Your task to perform on an android device: uninstall "Indeed Job Search" Image 0: 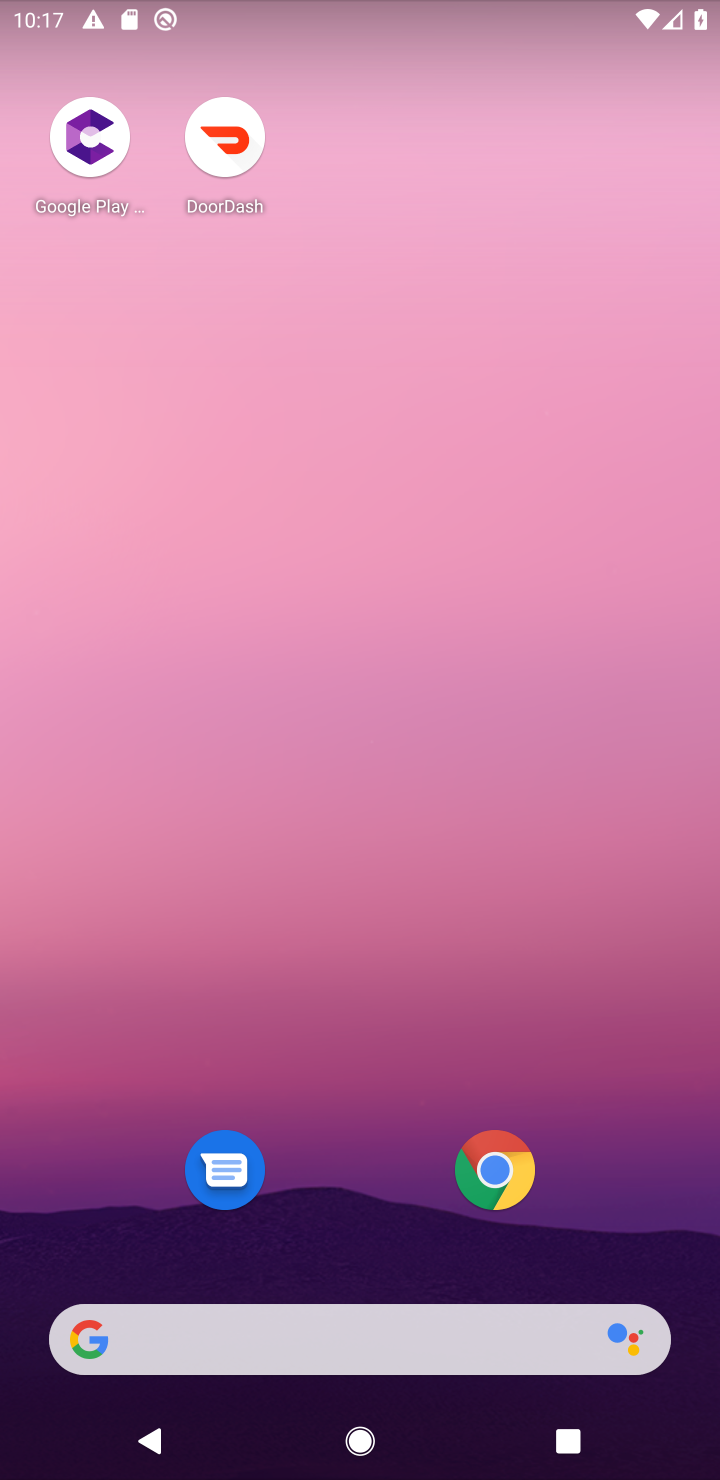
Step 0: drag from (370, 1244) to (336, 182)
Your task to perform on an android device: uninstall "Indeed Job Search" Image 1: 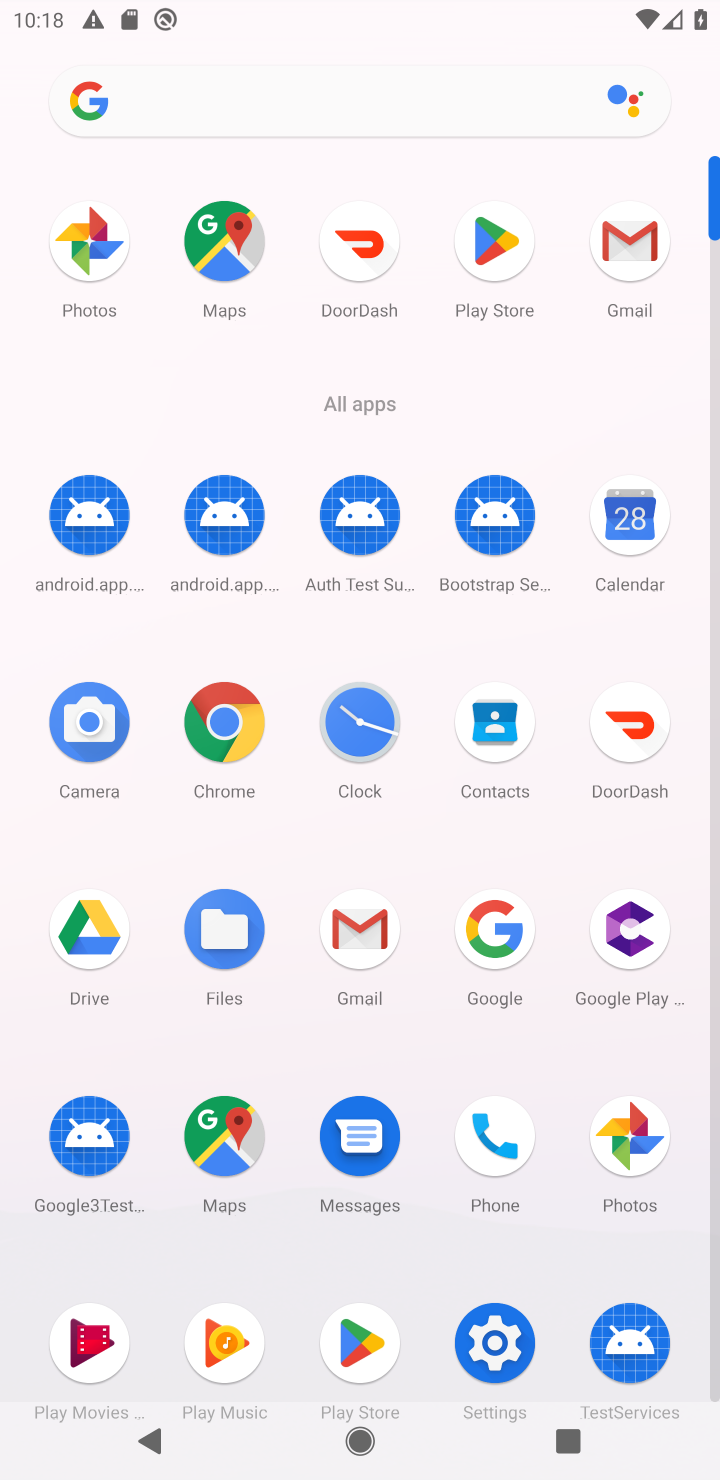
Step 1: click (365, 1332)
Your task to perform on an android device: uninstall "Indeed Job Search" Image 2: 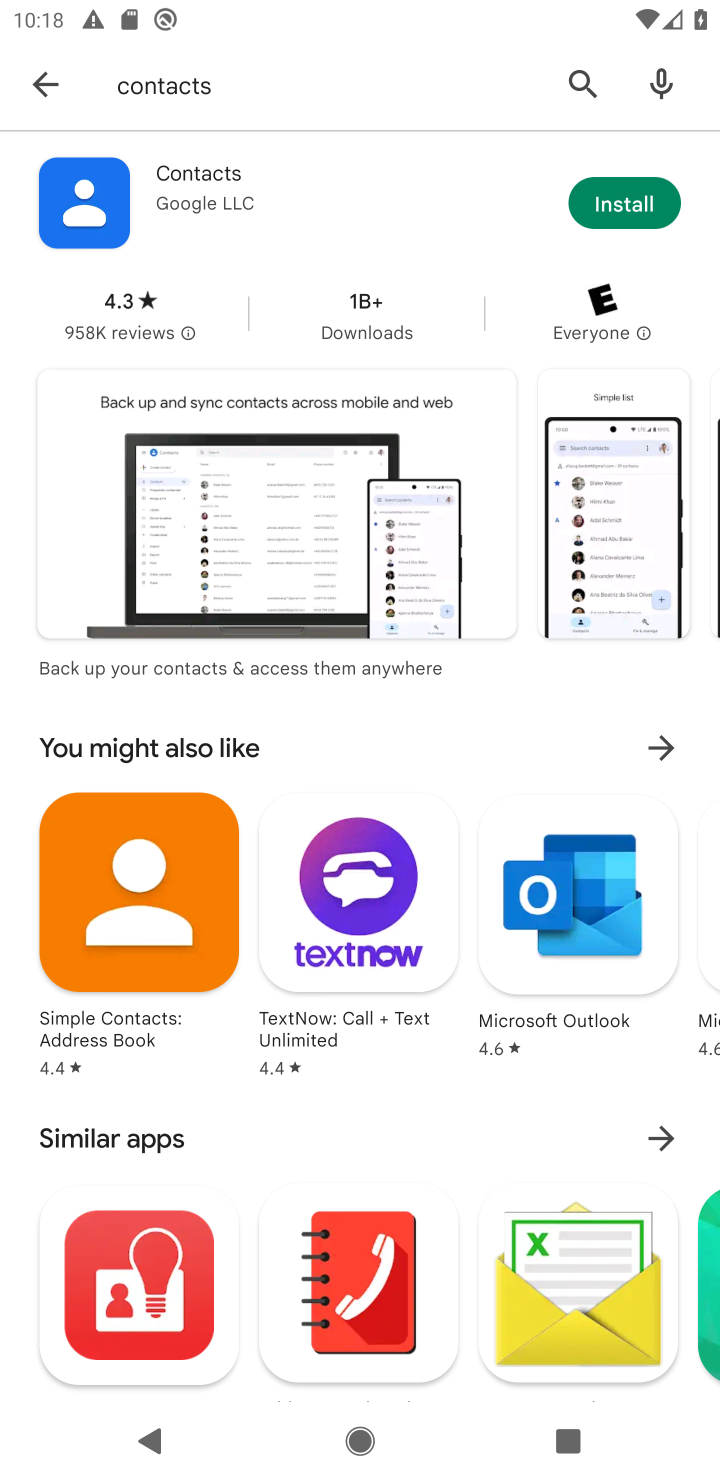
Step 2: click (38, 76)
Your task to perform on an android device: uninstall "Indeed Job Search" Image 3: 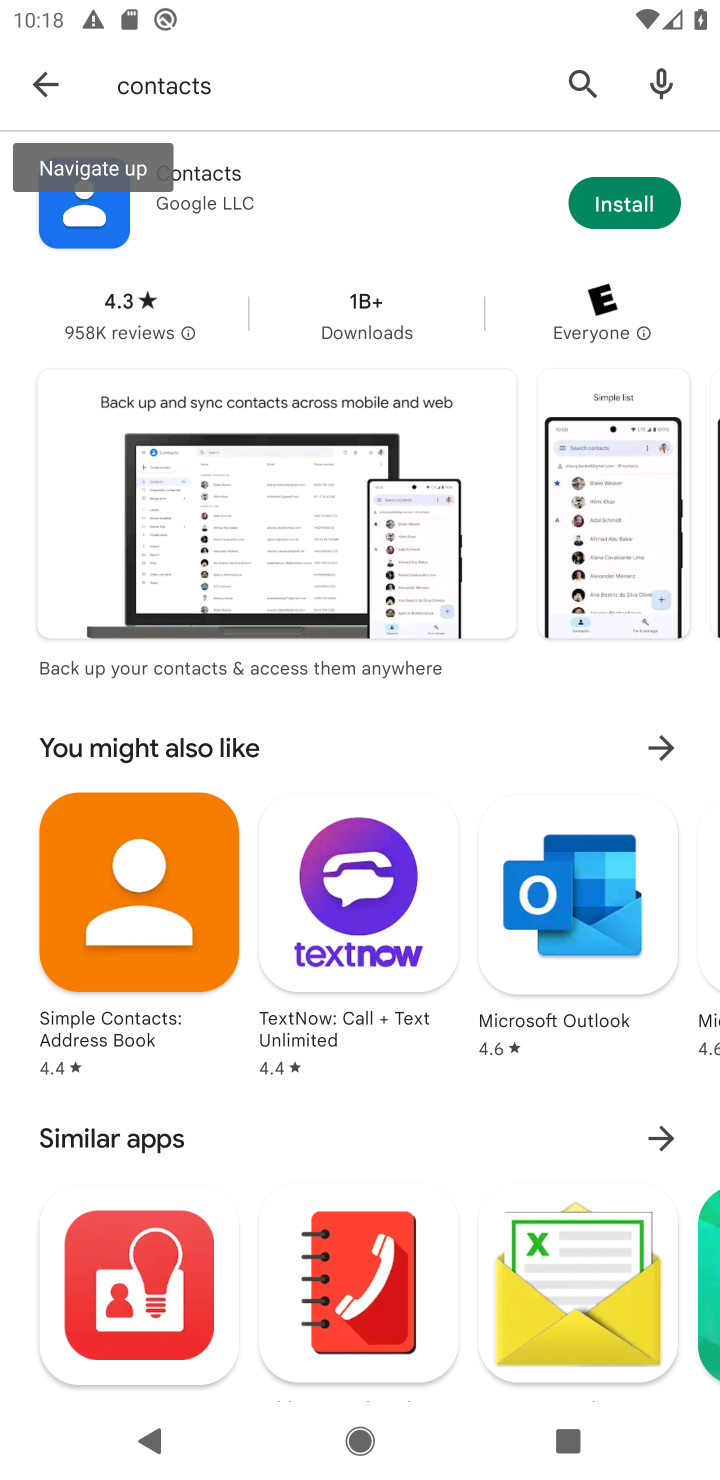
Step 3: click (298, 101)
Your task to perform on an android device: uninstall "Indeed Job Search" Image 4: 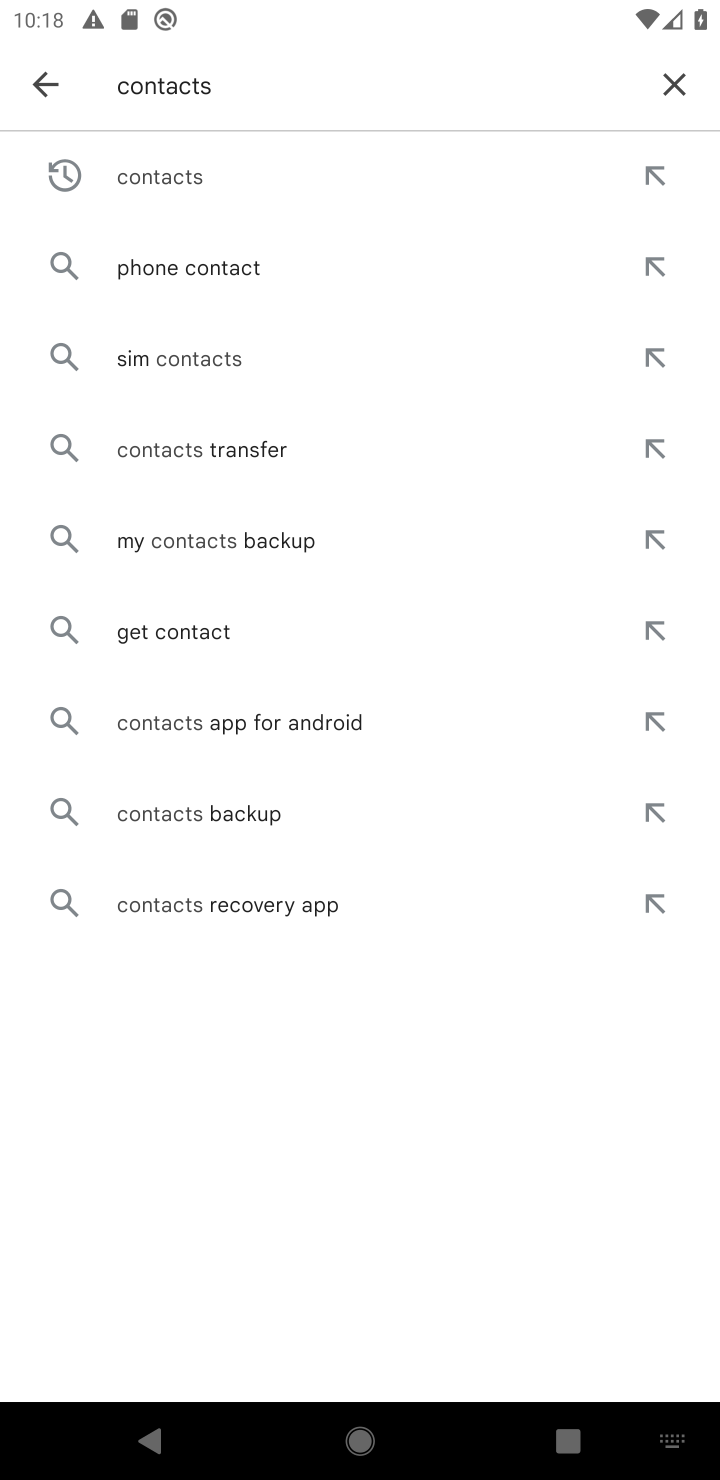
Step 4: click (677, 82)
Your task to perform on an android device: uninstall "Indeed Job Search" Image 5: 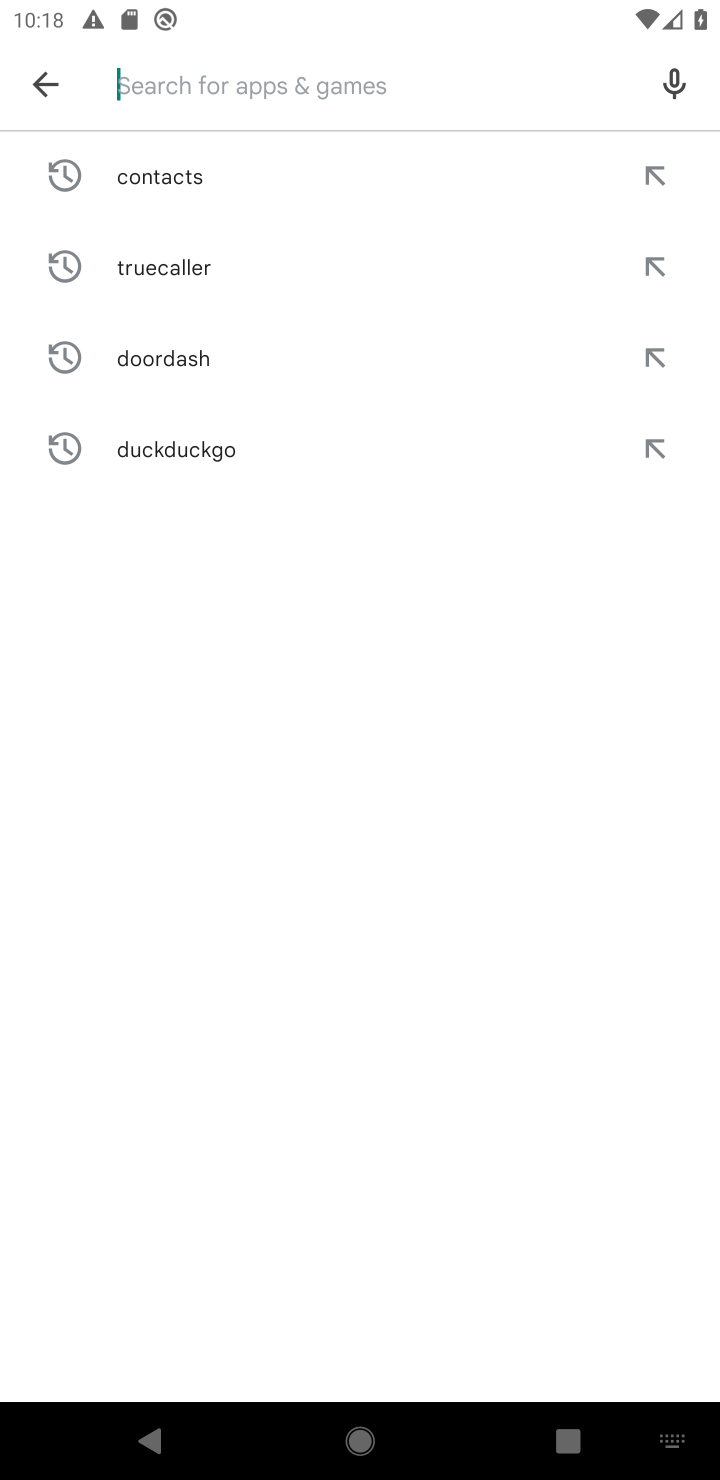
Step 5: type "indeed job search"
Your task to perform on an android device: uninstall "Indeed Job Search" Image 6: 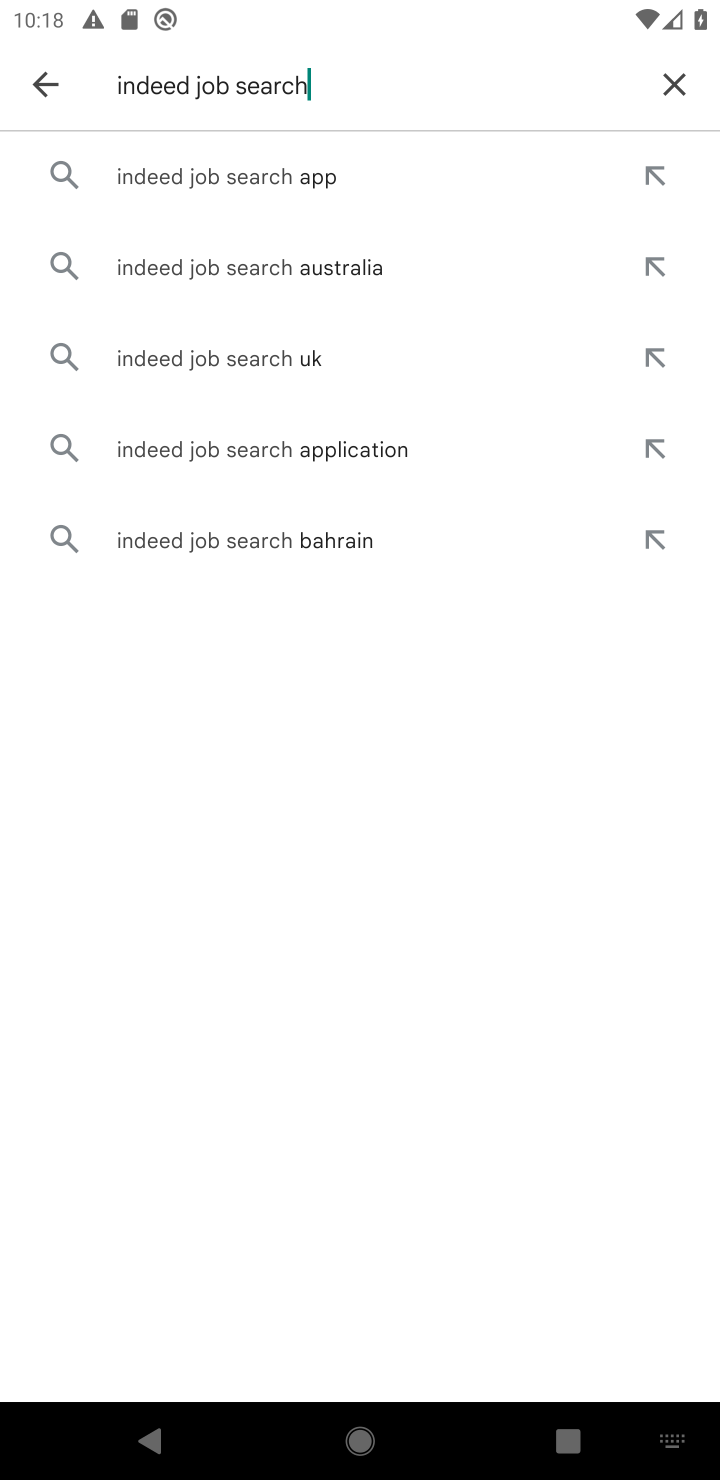
Step 6: click (122, 194)
Your task to perform on an android device: uninstall "Indeed Job Search" Image 7: 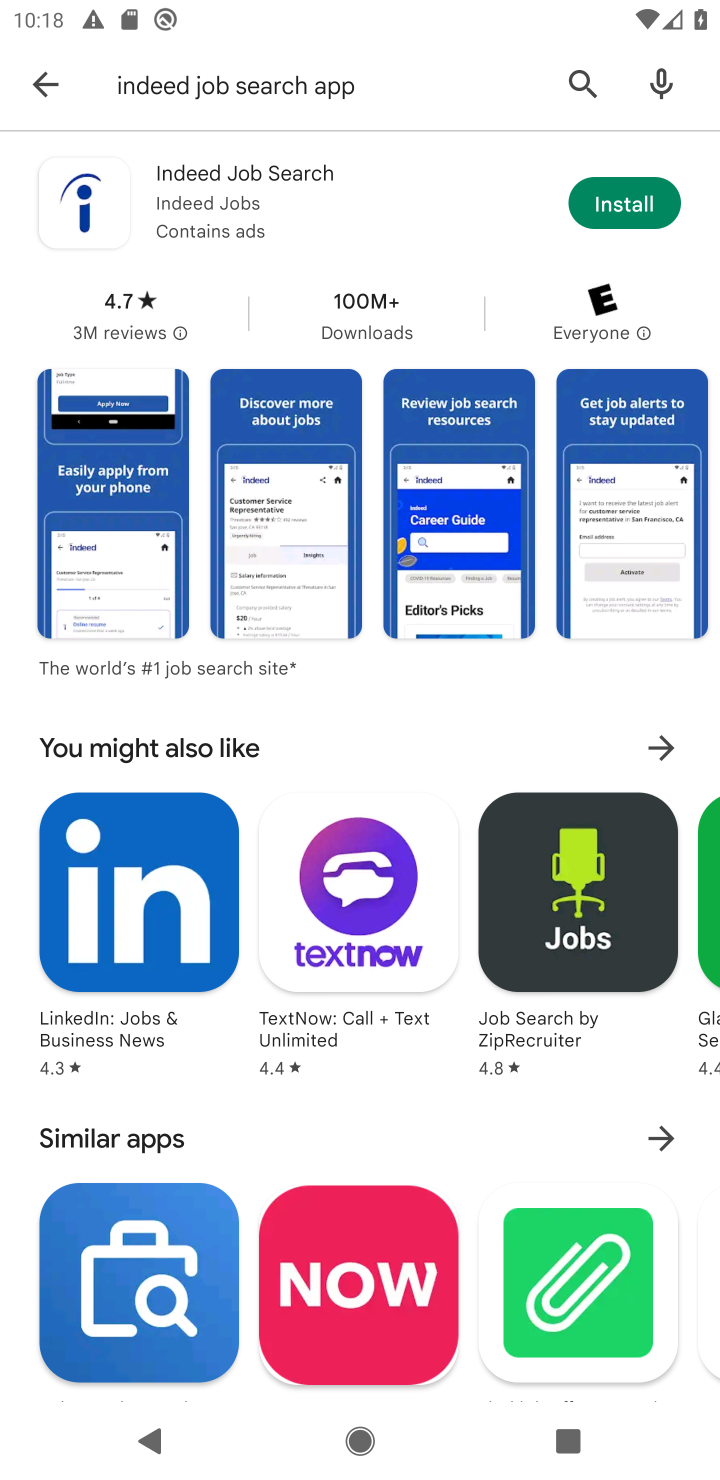
Step 7: task complete